Your task to perform on an android device: search for starred emails in the gmail app Image 0: 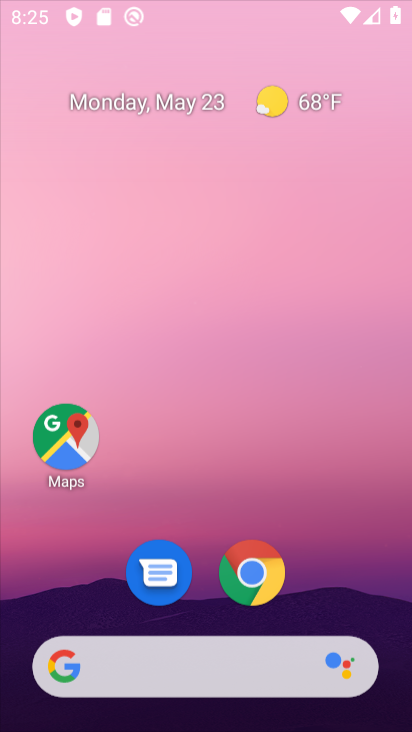
Step 0: press home button
Your task to perform on an android device: search for starred emails in the gmail app Image 1: 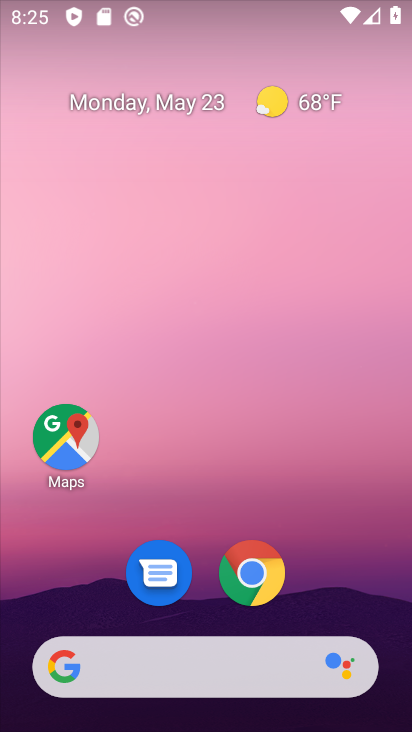
Step 1: drag from (216, 613) to (236, 208)
Your task to perform on an android device: search for starred emails in the gmail app Image 2: 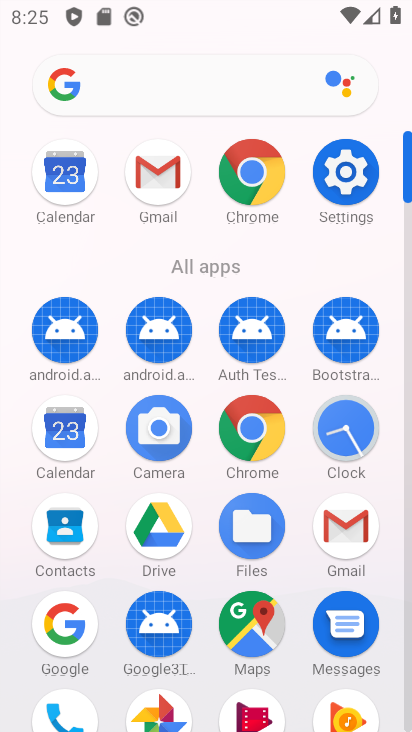
Step 2: click (354, 514)
Your task to perform on an android device: search for starred emails in the gmail app Image 3: 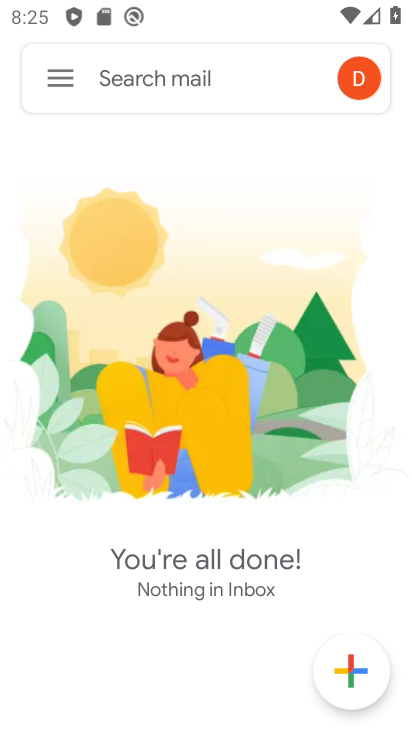
Step 3: click (56, 72)
Your task to perform on an android device: search for starred emails in the gmail app Image 4: 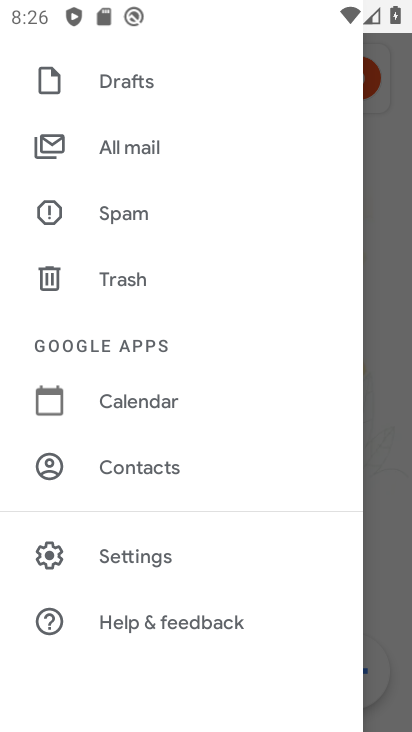
Step 4: drag from (106, 142) to (153, 669)
Your task to perform on an android device: search for starred emails in the gmail app Image 5: 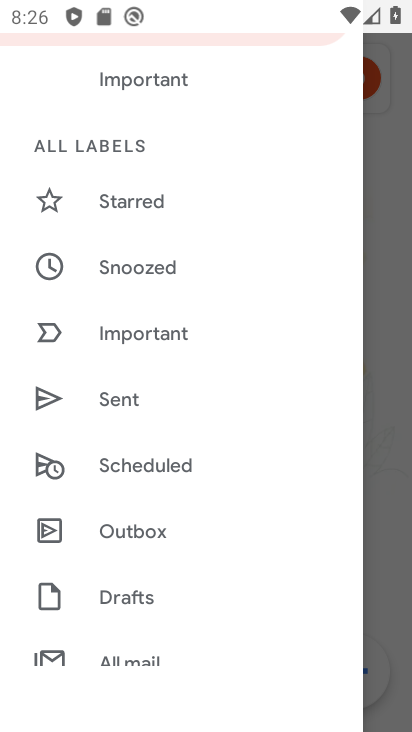
Step 5: click (76, 197)
Your task to perform on an android device: search for starred emails in the gmail app Image 6: 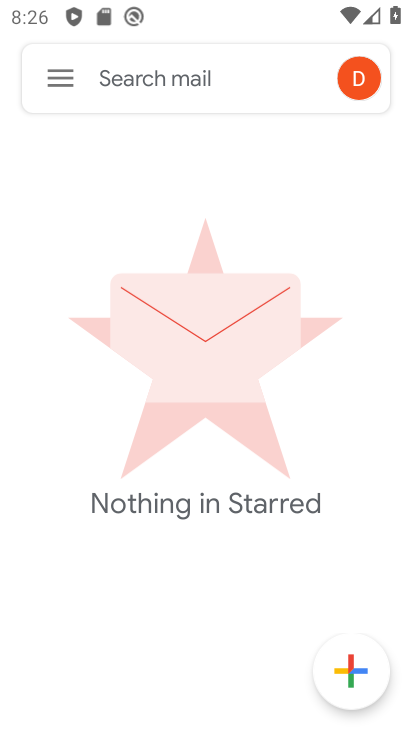
Step 6: task complete